Your task to perform on an android device: turn off location Image 0: 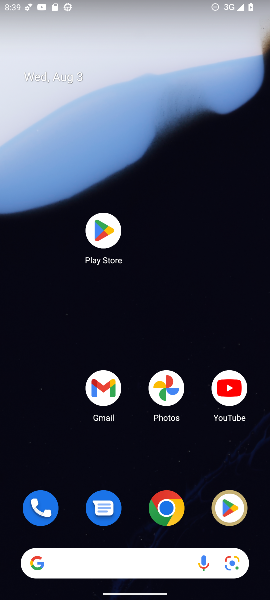
Step 0: drag from (156, 540) to (143, 93)
Your task to perform on an android device: turn off location Image 1: 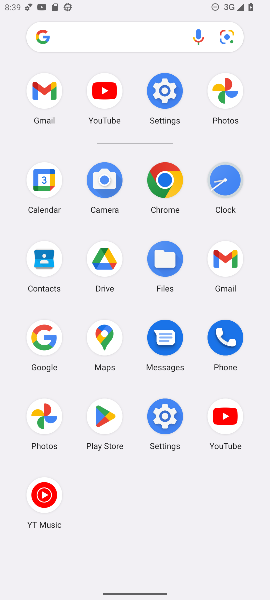
Step 1: click (154, 86)
Your task to perform on an android device: turn off location Image 2: 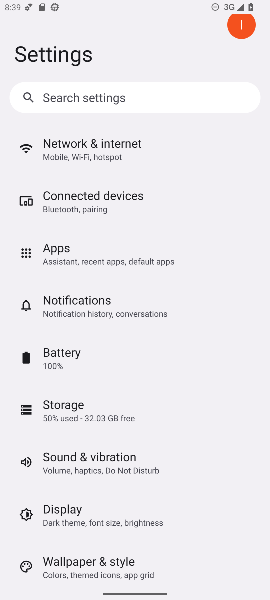
Step 2: drag from (123, 475) to (158, 170)
Your task to perform on an android device: turn off location Image 3: 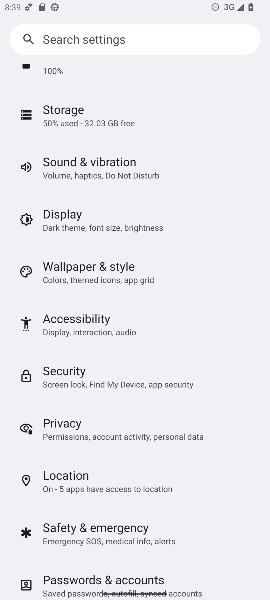
Step 3: click (73, 487)
Your task to perform on an android device: turn off location Image 4: 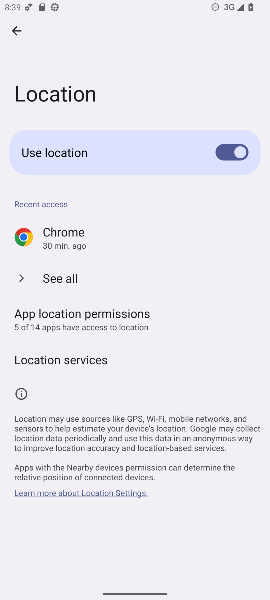
Step 4: click (222, 152)
Your task to perform on an android device: turn off location Image 5: 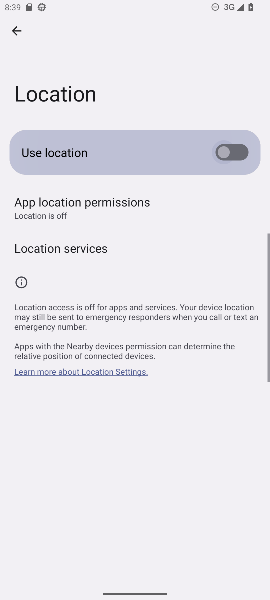
Step 5: task complete